Your task to perform on an android device: open app "Airtel Thanks" (install if not already installed) and go to login screen Image 0: 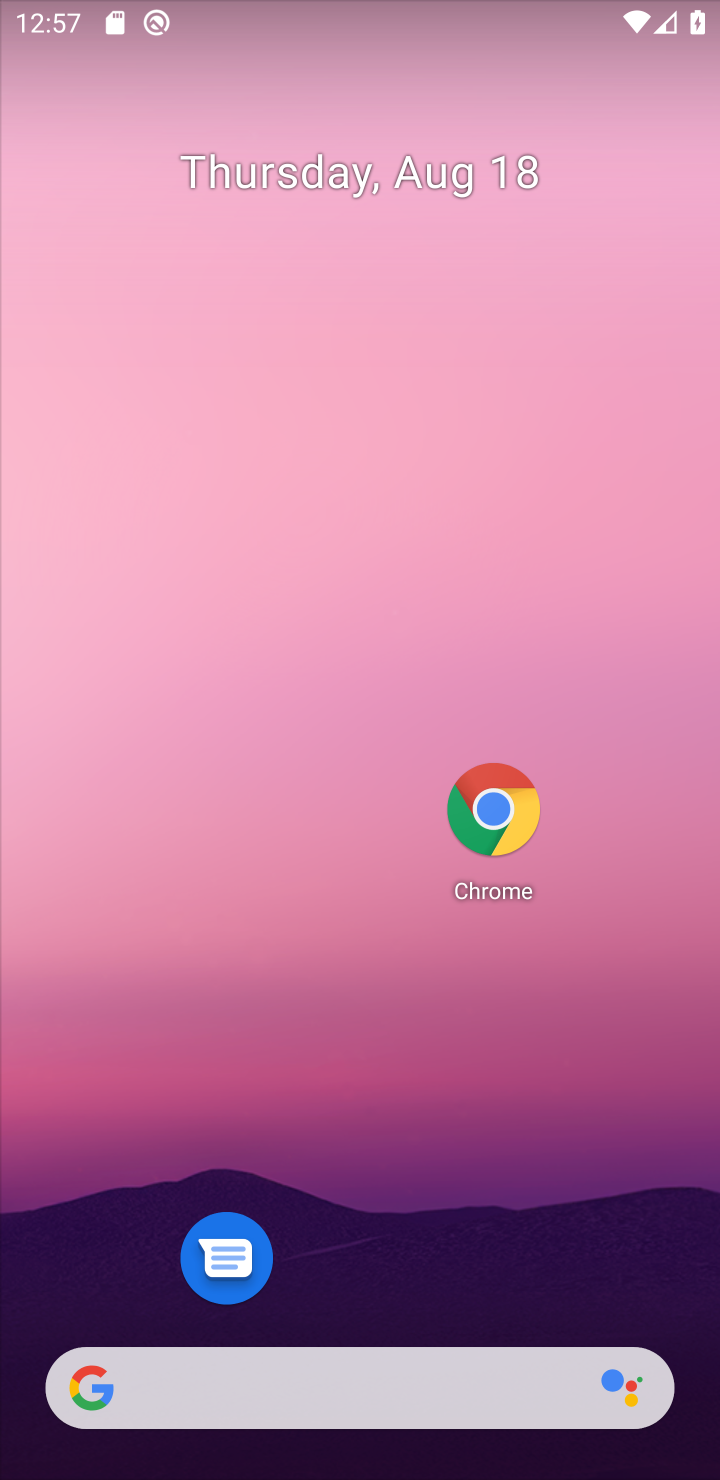
Step 0: drag from (389, 1219) to (396, 494)
Your task to perform on an android device: open app "Airtel Thanks" (install if not already installed) and go to login screen Image 1: 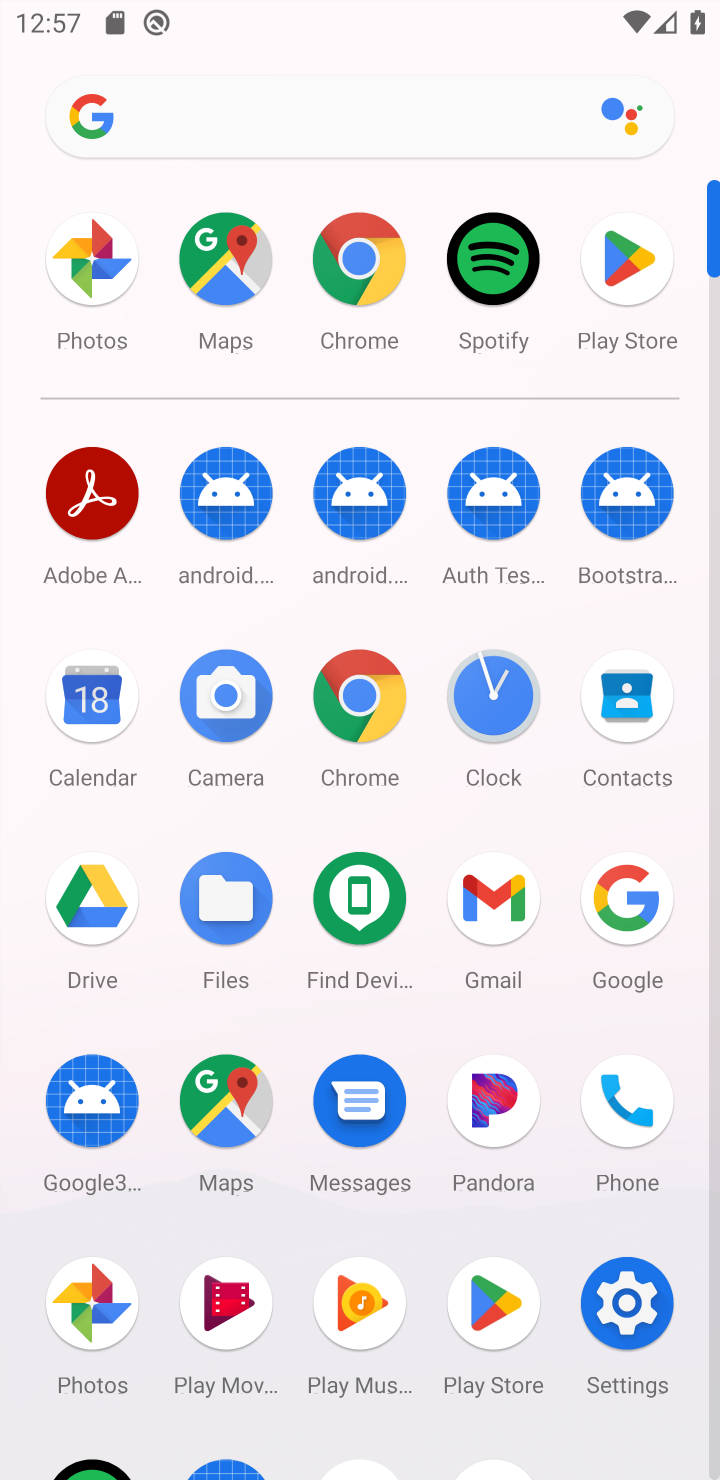
Step 1: click (625, 249)
Your task to perform on an android device: open app "Airtel Thanks" (install if not already installed) and go to login screen Image 2: 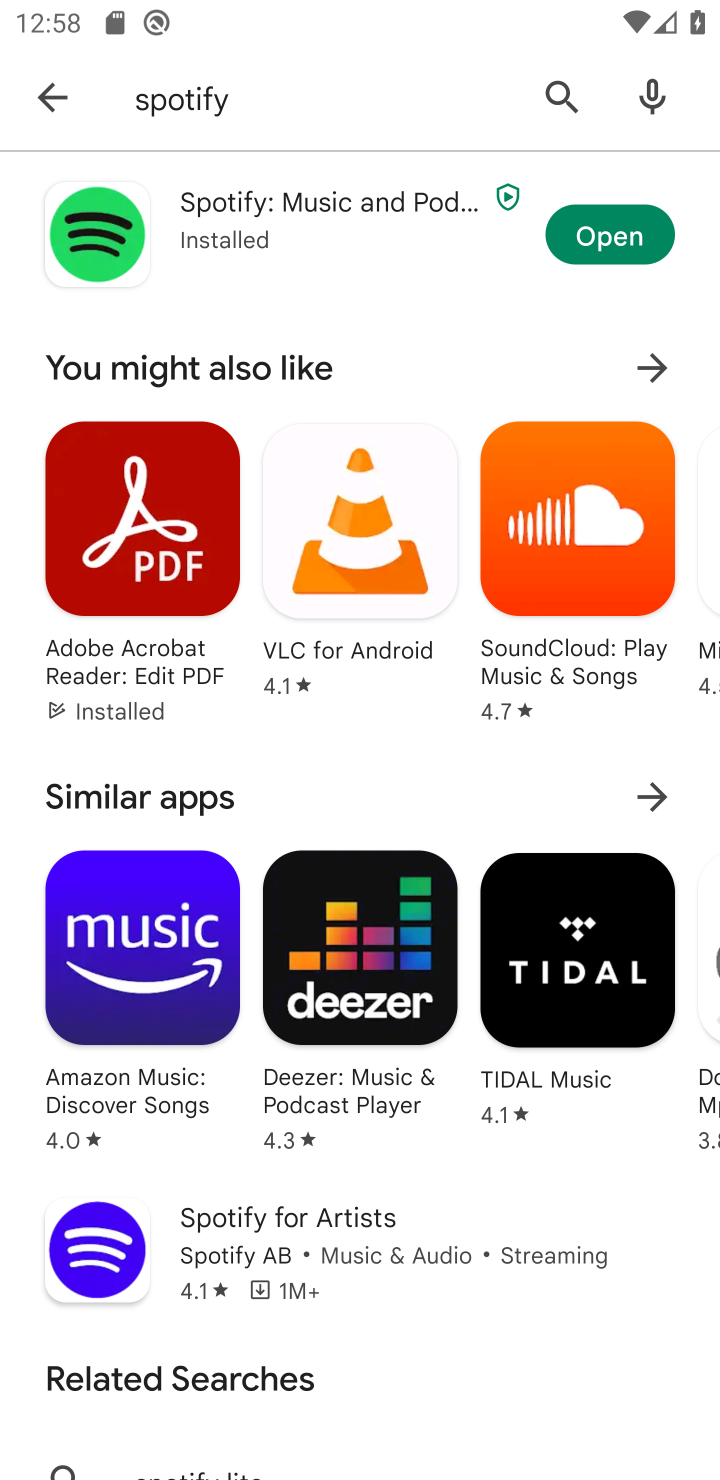
Step 2: click (36, 92)
Your task to perform on an android device: open app "Airtel Thanks" (install if not already installed) and go to login screen Image 3: 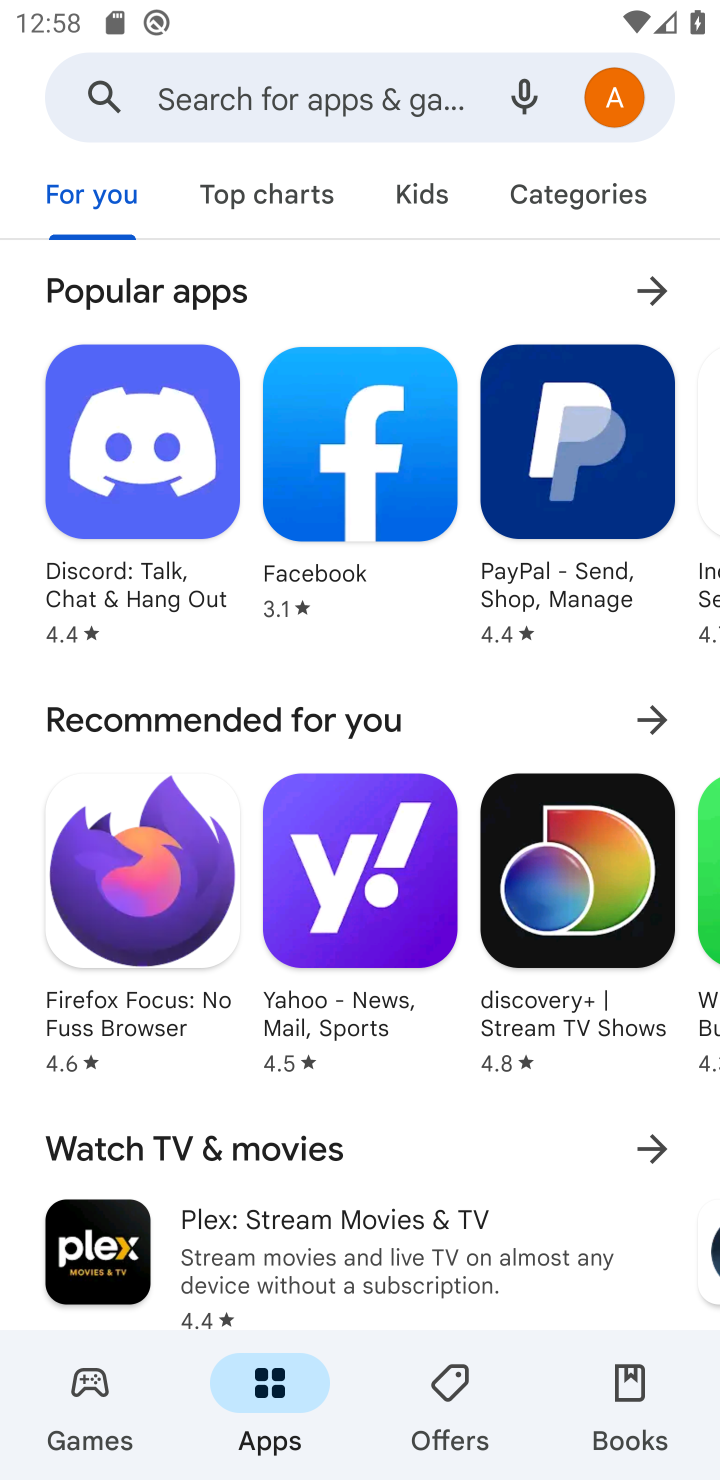
Step 3: click (188, 93)
Your task to perform on an android device: open app "Airtel Thanks" (install if not already installed) and go to login screen Image 4: 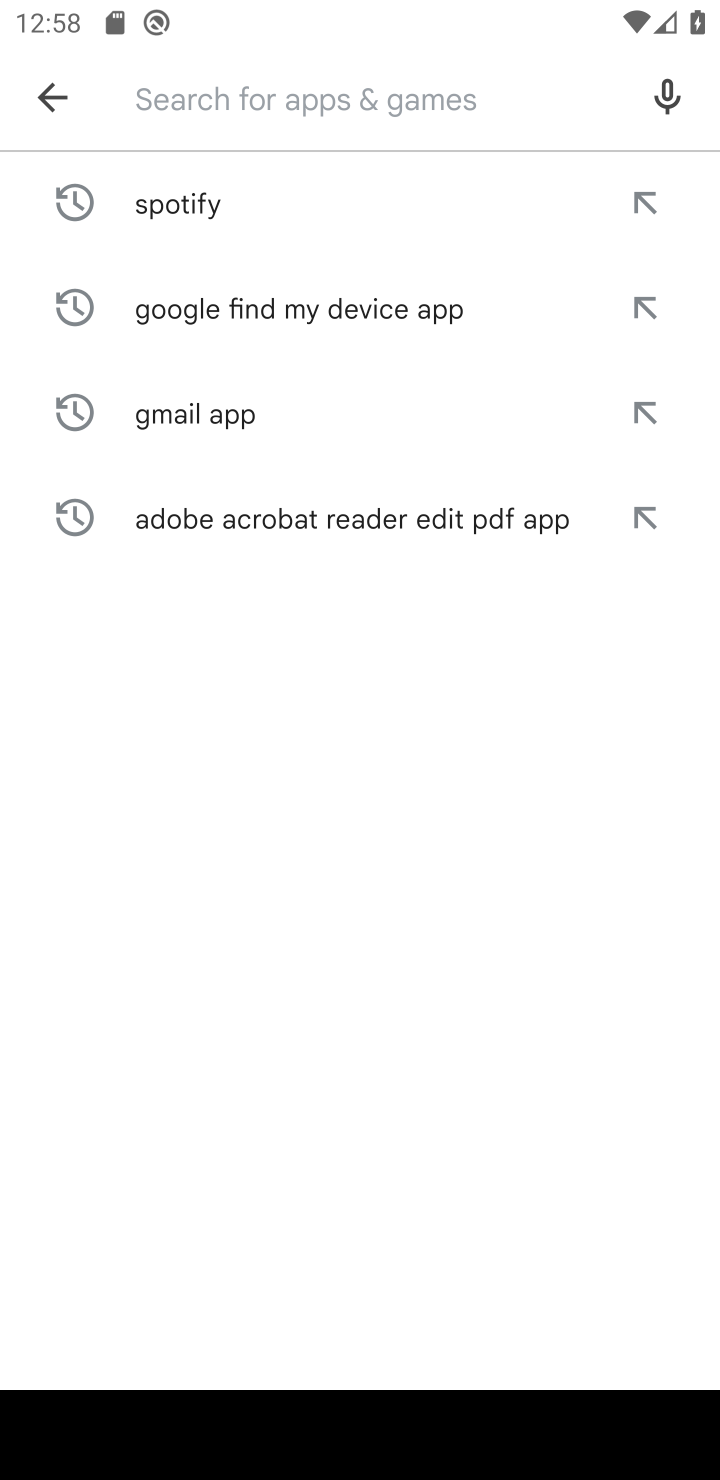
Step 4: type "airtel thanks "
Your task to perform on an android device: open app "Airtel Thanks" (install if not already installed) and go to login screen Image 5: 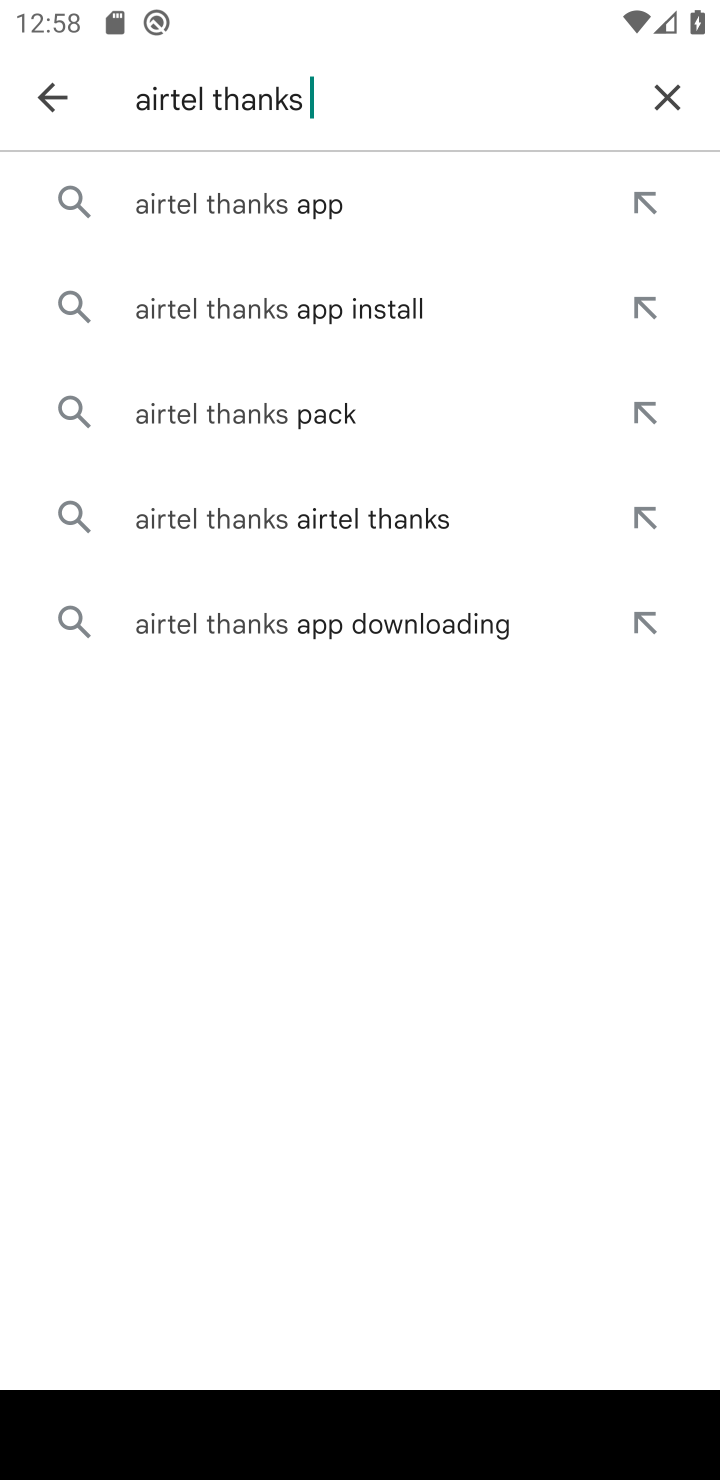
Step 5: click (218, 220)
Your task to perform on an android device: open app "Airtel Thanks" (install if not already installed) and go to login screen Image 6: 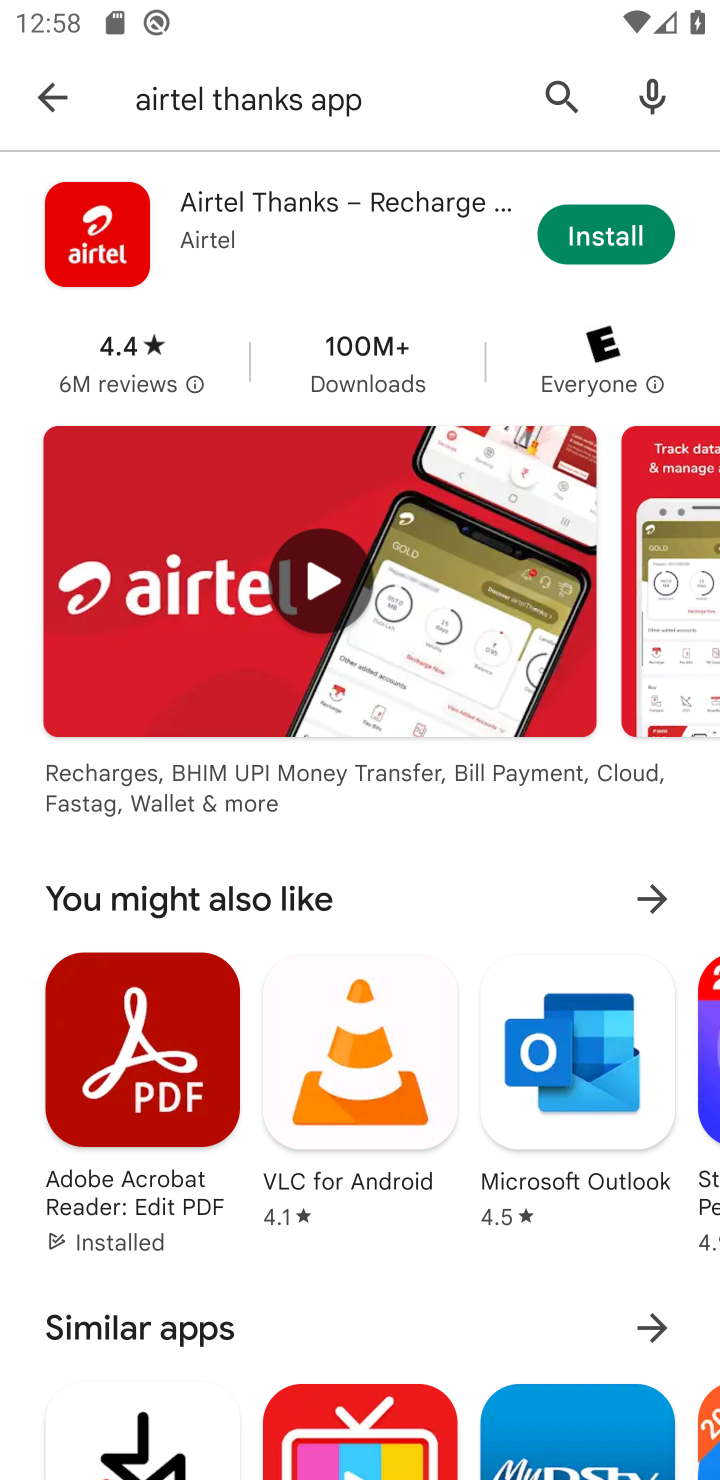
Step 6: click (565, 228)
Your task to perform on an android device: open app "Airtel Thanks" (install if not already installed) and go to login screen Image 7: 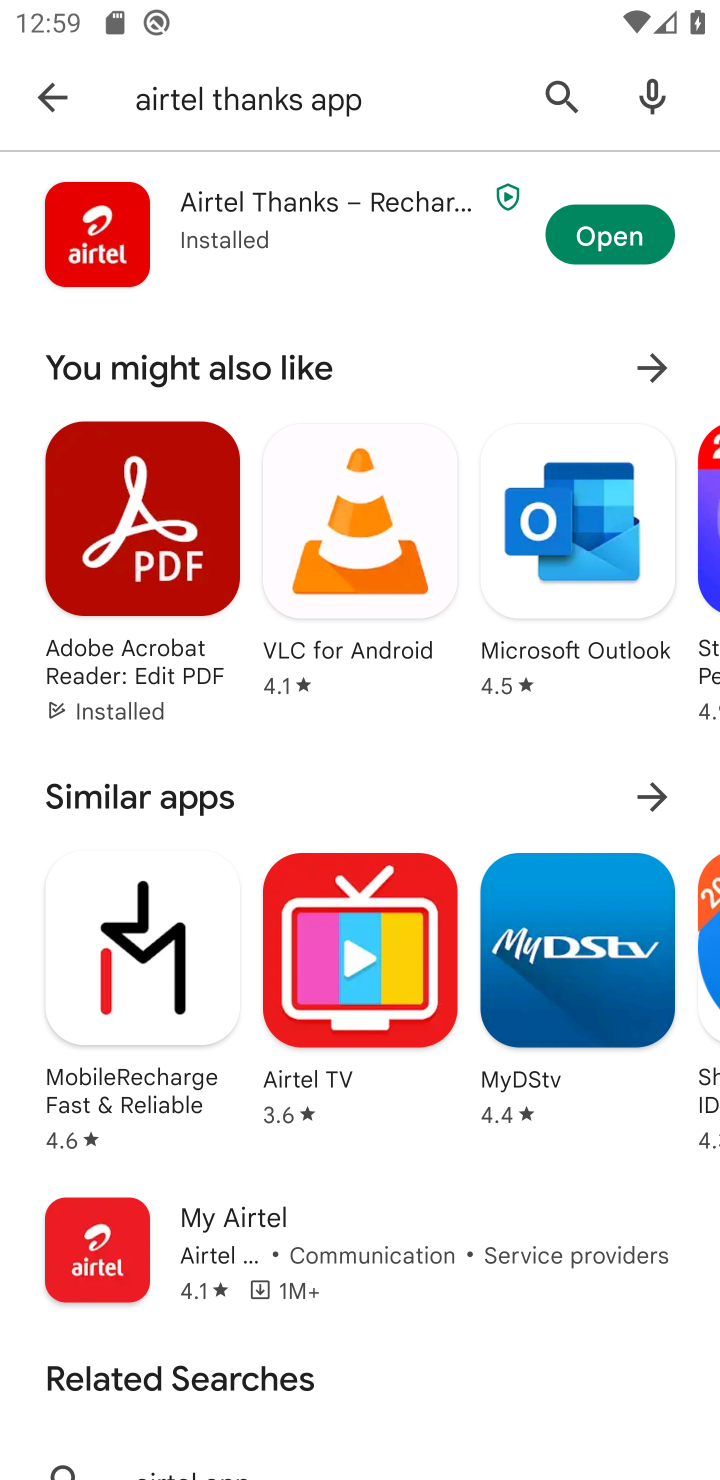
Step 7: click (635, 227)
Your task to perform on an android device: open app "Airtel Thanks" (install if not already installed) and go to login screen Image 8: 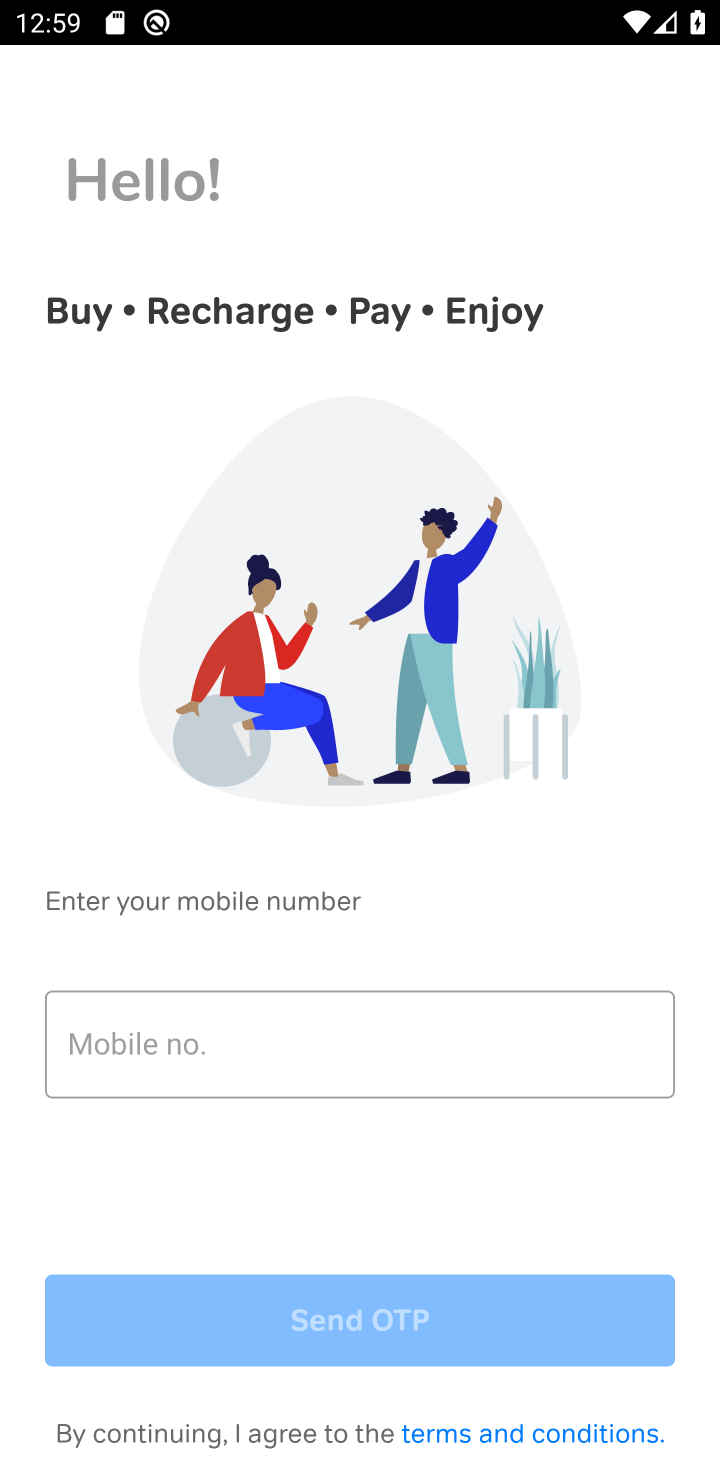
Step 8: task complete